Your task to perform on an android device: Go to calendar. Show me events next week Image 0: 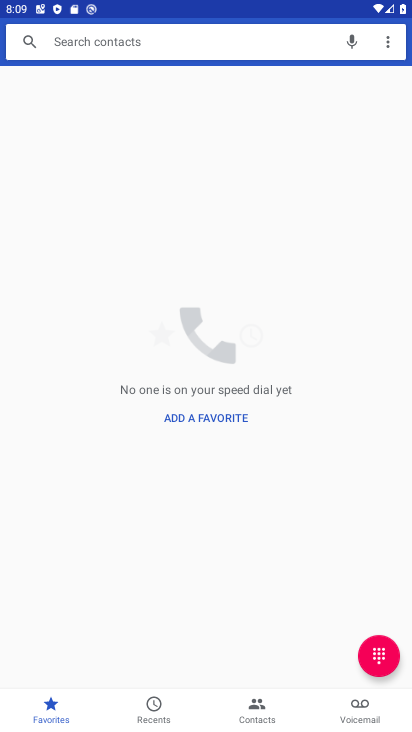
Step 0: press home button
Your task to perform on an android device: Go to calendar. Show me events next week Image 1: 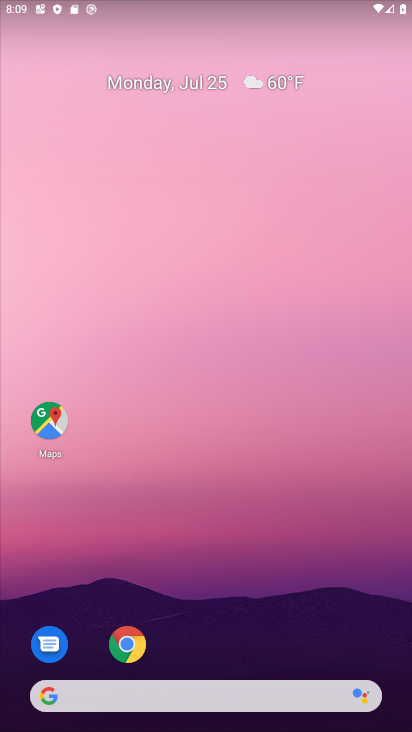
Step 1: drag from (284, 551) to (284, 233)
Your task to perform on an android device: Go to calendar. Show me events next week Image 2: 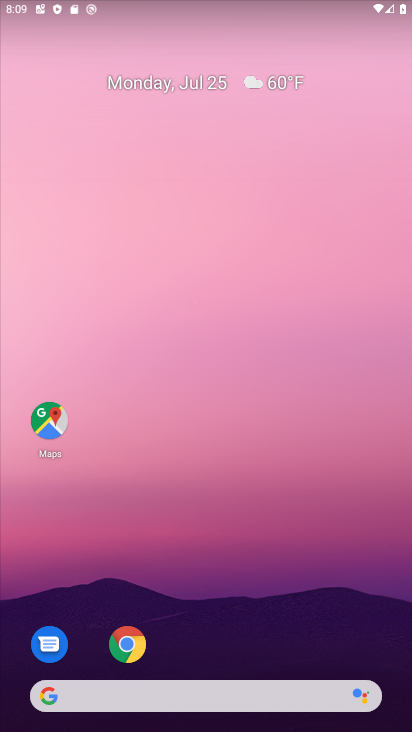
Step 2: drag from (303, 517) to (320, 23)
Your task to perform on an android device: Go to calendar. Show me events next week Image 3: 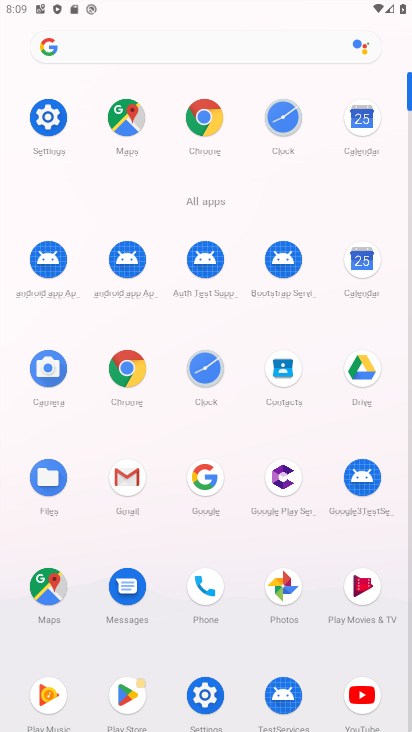
Step 3: click (362, 261)
Your task to perform on an android device: Go to calendar. Show me events next week Image 4: 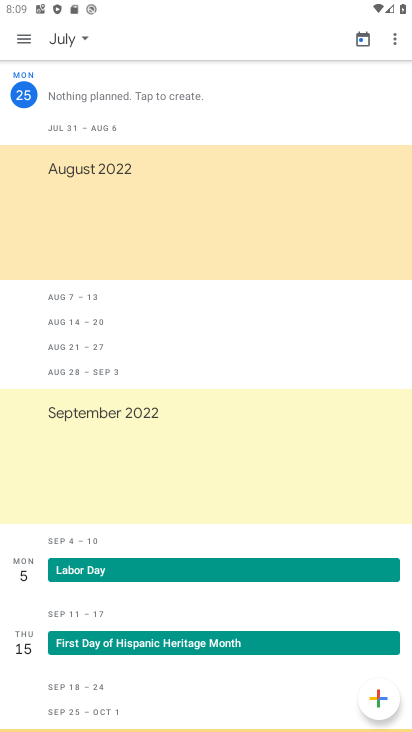
Step 4: task complete